Your task to perform on an android device: check battery use Image 0: 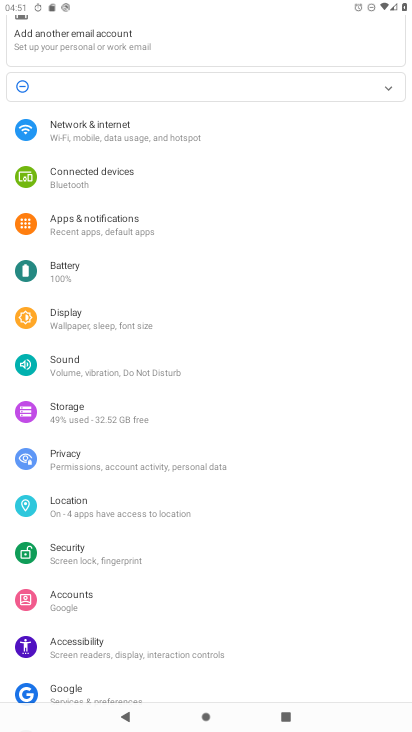
Step 0: press home button
Your task to perform on an android device: check battery use Image 1: 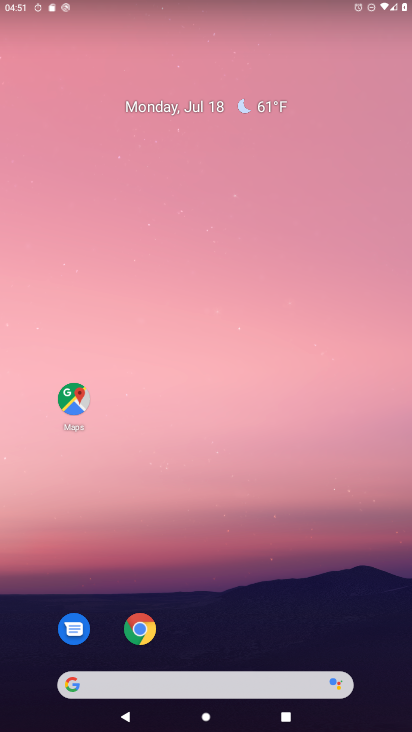
Step 1: drag from (215, 687) to (284, 226)
Your task to perform on an android device: check battery use Image 2: 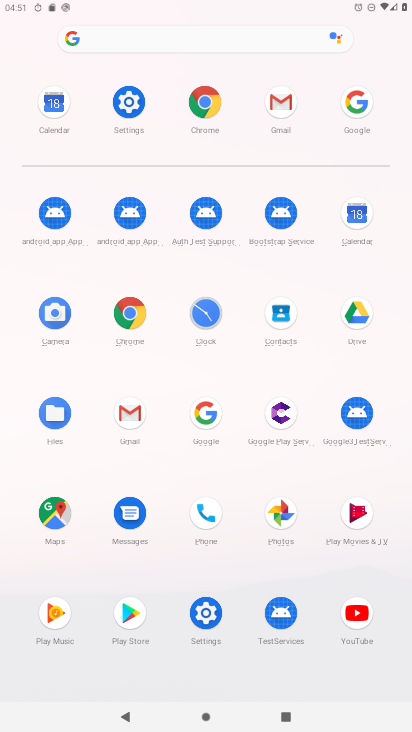
Step 2: click (129, 103)
Your task to perform on an android device: check battery use Image 3: 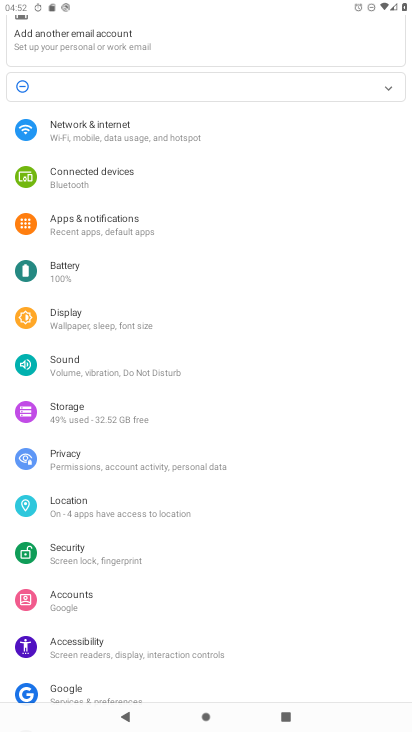
Step 3: click (68, 274)
Your task to perform on an android device: check battery use Image 4: 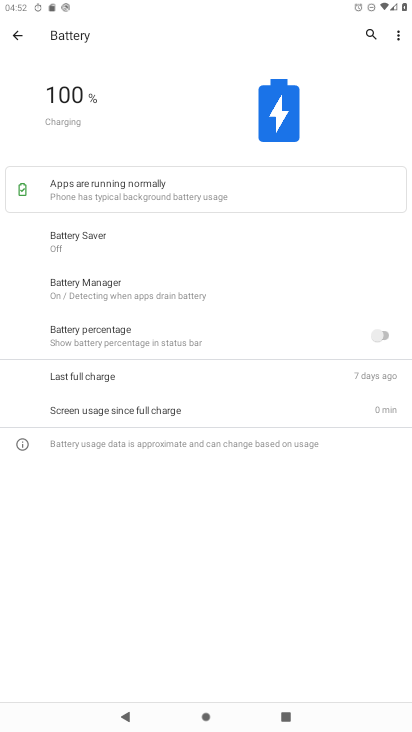
Step 4: click (398, 36)
Your task to perform on an android device: check battery use Image 5: 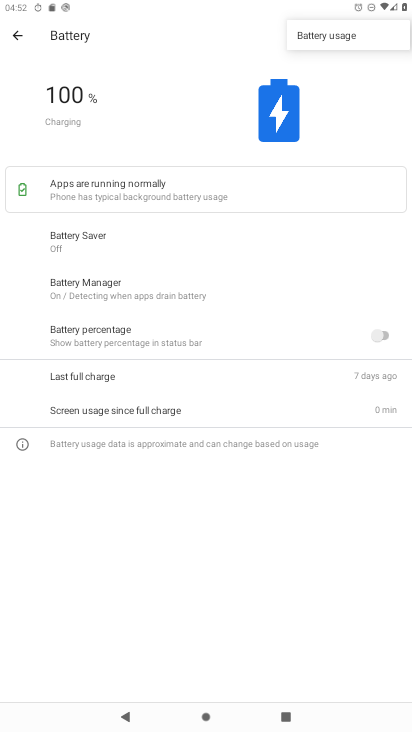
Step 5: click (359, 39)
Your task to perform on an android device: check battery use Image 6: 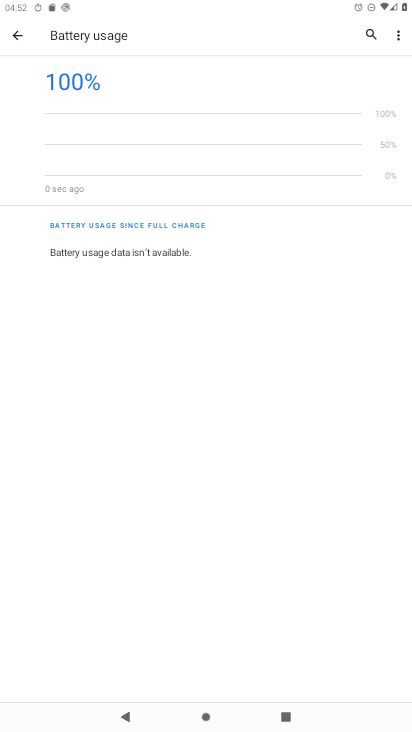
Step 6: task complete